Your task to perform on an android device: turn off wifi Image 0: 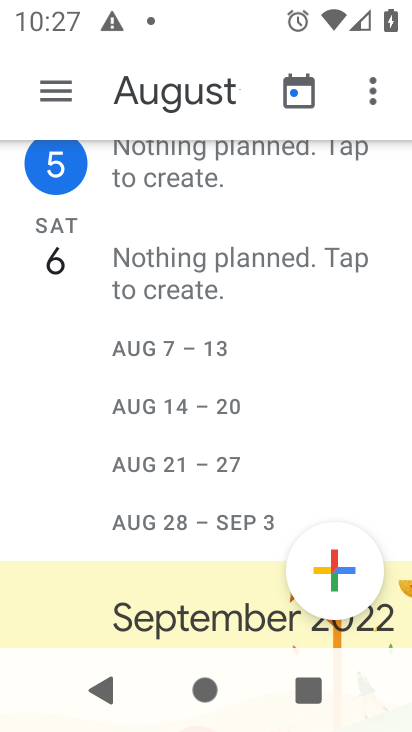
Step 0: press home button
Your task to perform on an android device: turn off wifi Image 1: 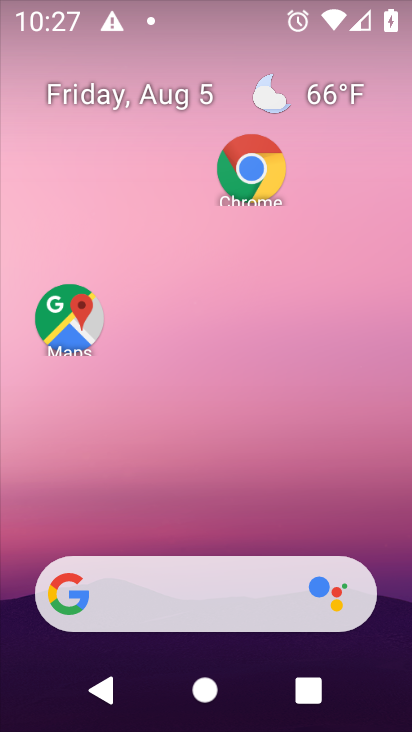
Step 1: drag from (180, 494) to (167, 87)
Your task to perform on an android device: turn off wifi Image 2: 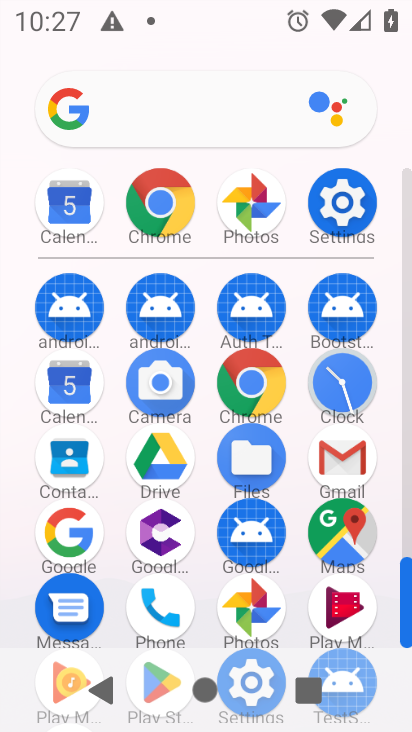
Step 2: click (327, 215)
Your task to perform on an android device: turn off wifi Image 3: 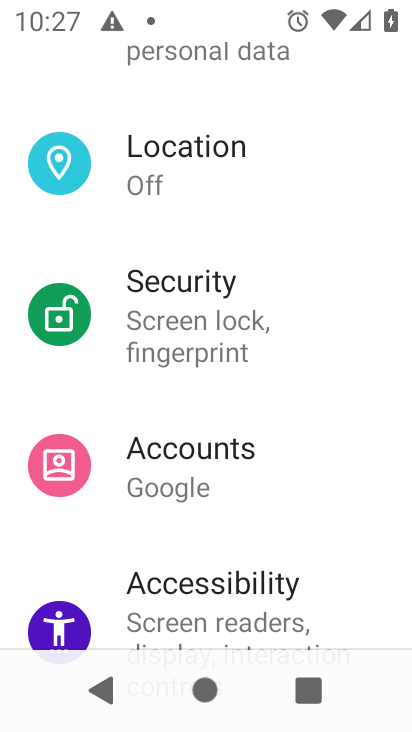
Step 3: drag from (234, 148) to (261, 558)
Your task to perform on an android device: turn off wifi Image 4: 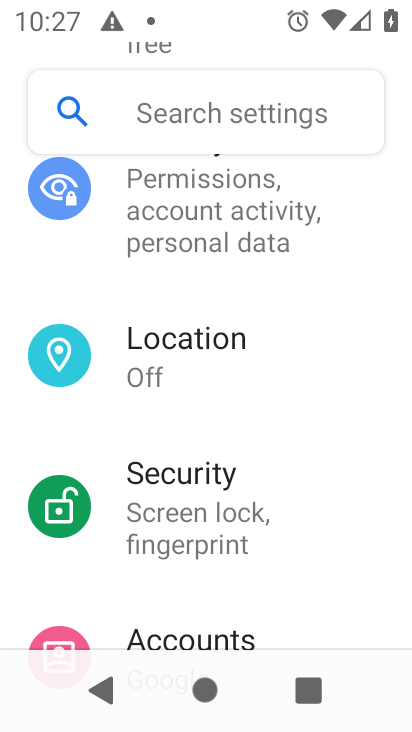
Step 4: drag from (240, 211) to (240, 659)
Your task to perform on an android device: turn off wifi Image 5: 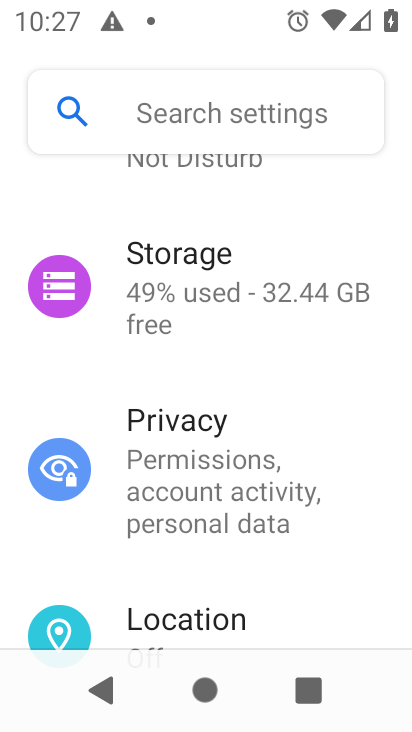
Step 5: drag from (185, 183) to (185, 467)
Your task to perform on an android device: turn off wifi Image 6: 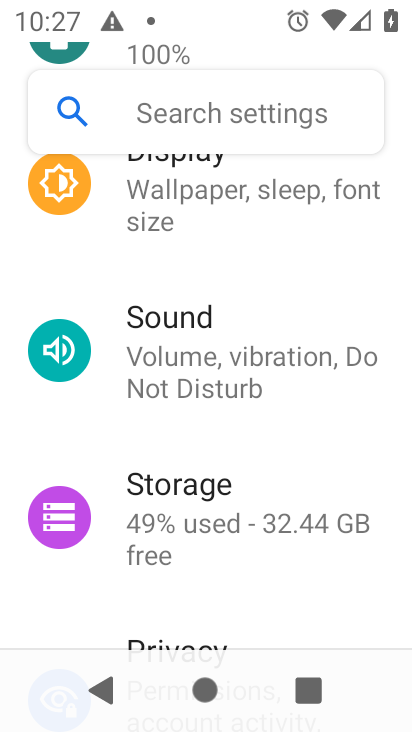
Step 6: drag from (219, 184) to (248, 456)
Your task to perform on an android device: turn off wifi Image 7: 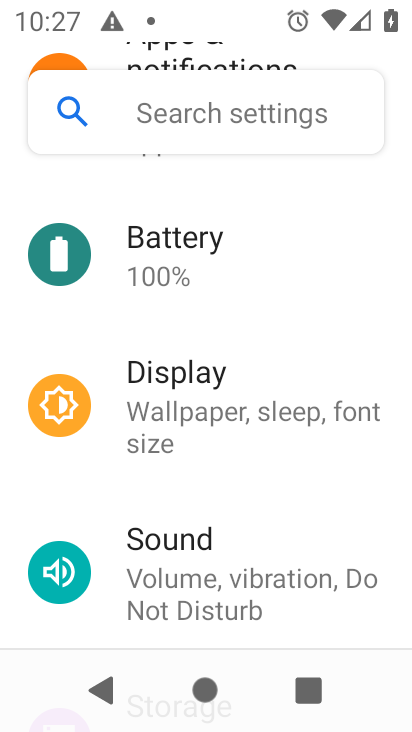
Step 7: drag from (240, 225) to (272, 538)
Your task to perform on an android device: turn off wifi Image 8: 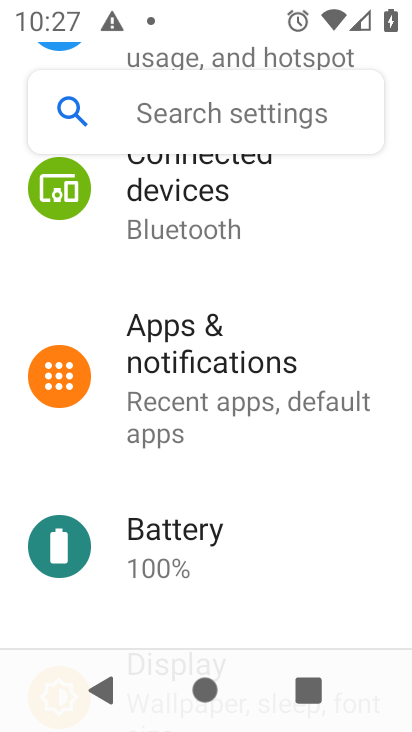
Step 8: drag from (247, 211) to (247, 516)
Your task to perform on an android device: turn off wifi Image 9: 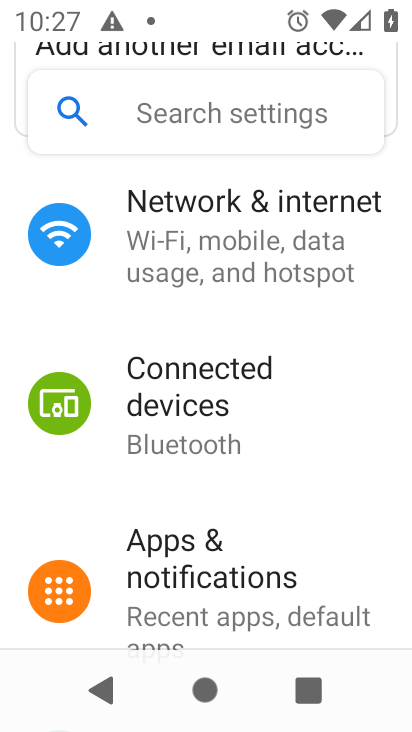
Step 9: click (201, 226)
Your task to perform on an android device: turn off wifi Image 10: 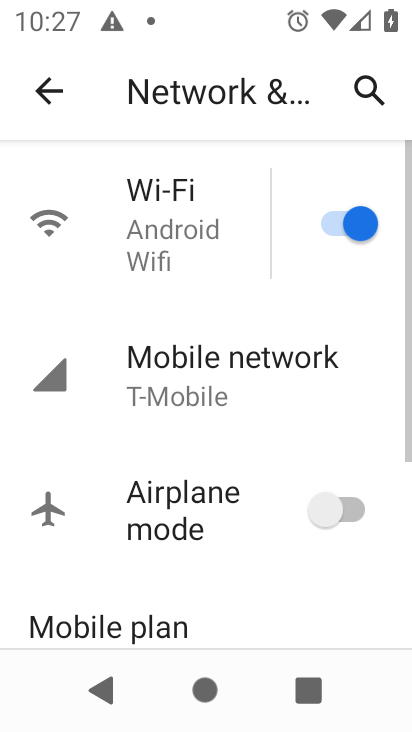
Step 10: click (320, 212)
Your task to perform on an android device: turn off wifi Image 11: 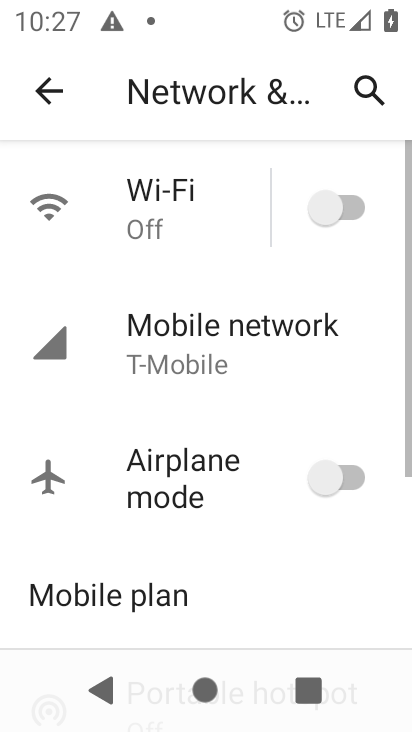
Step 11: task complete